Your task to perform on an android device: turn on airplane mode Image 0: 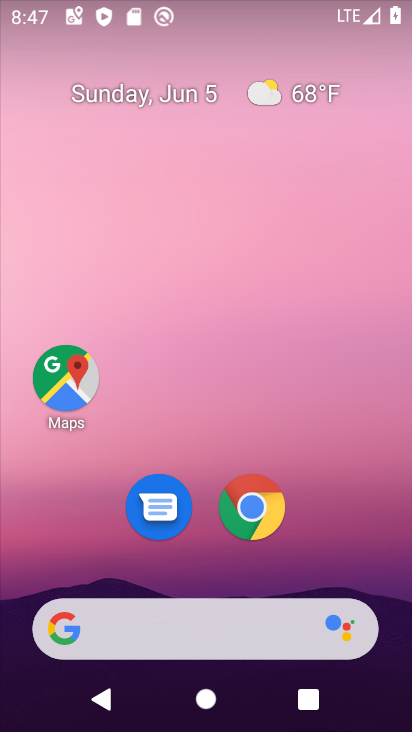
Step 0: drag from (207, 583) to (152, 15)
Your task to perform on an android device: turn on airplane mode Image 1: 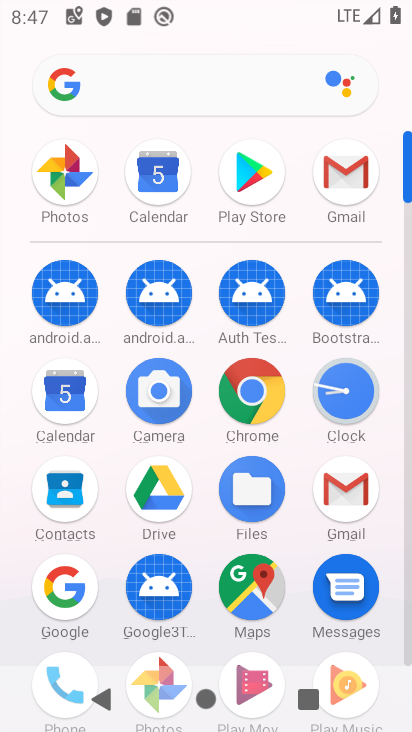
Step 1: drag from (214, 531) to (234, 198)
Your task to perform on an android device: turn on airplane mode Image 2: 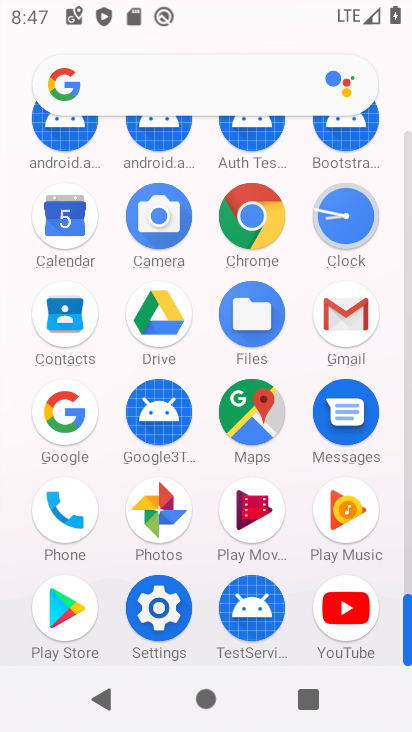
Step 2: click (156, 618)
Your task to perform on an android device: turn on airplane mode Image 3: 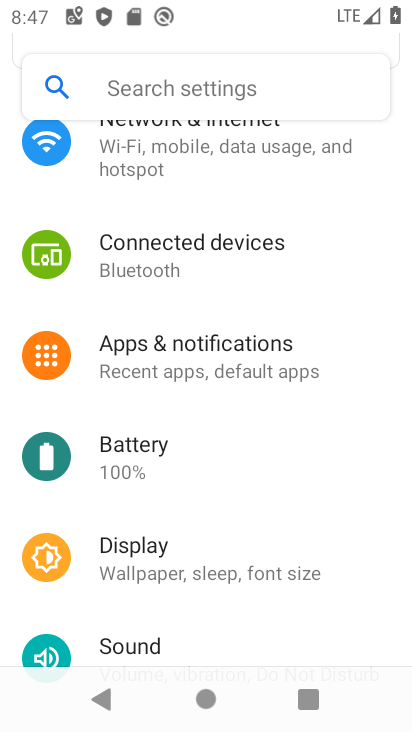
Step 3: drag from (243, 254) to (219, 672)
Your task to perform on an android device: turn on airplane mode Image 4: 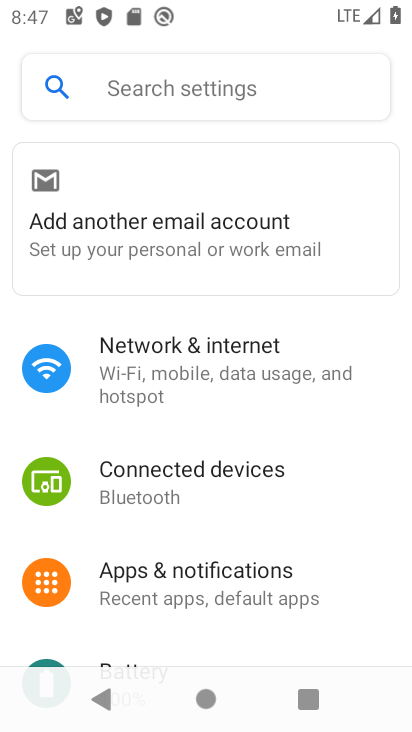
Step 4: click (207, 373)
Your task to perform on an android device: turn on airplane mode Image 5: 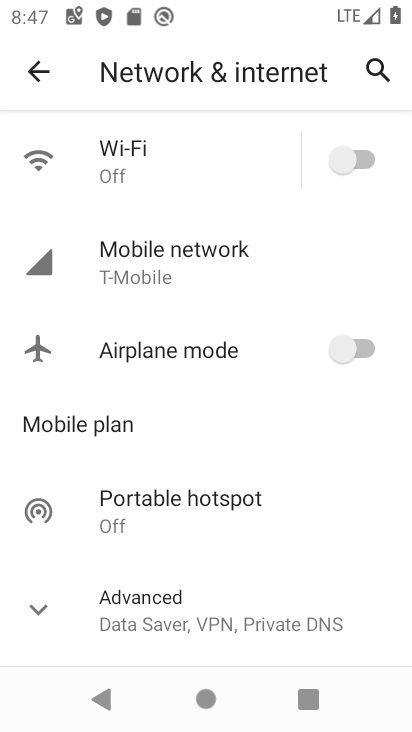
Step 5: click (370, 348)
Your task to perform on an android device: turn on airplane mode Image 6: 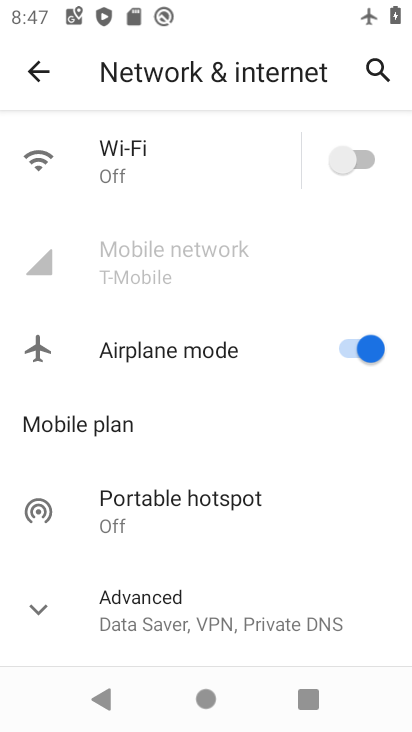
Step 6: task complete